Your task to perform on an android device: toggle priority inbox in the gmail app Image 0: 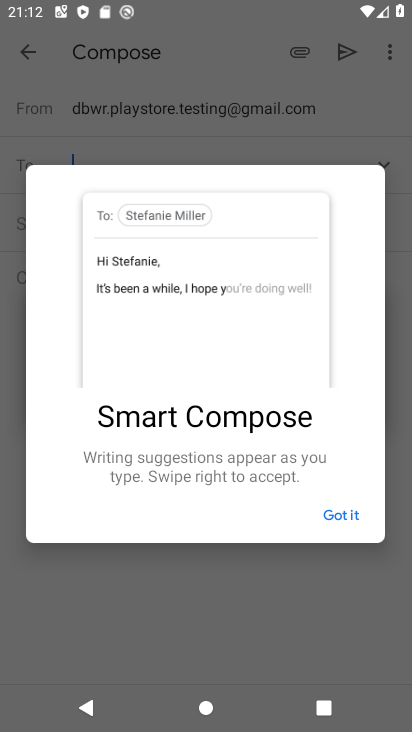
Step 0: press home button
Your task to perform on an android device: toggle priority inbox in the gmail app Image 1: 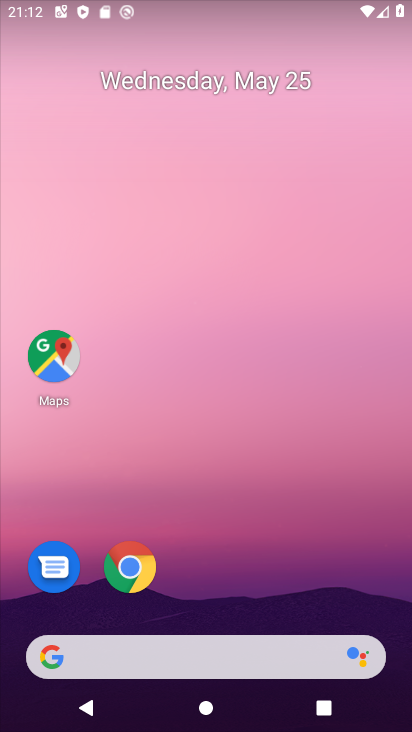
Step 1: drag from (241, 567) to (253, 25)
Your task to perform on an android device: toggle priority inbox in the gmail app Image 2: 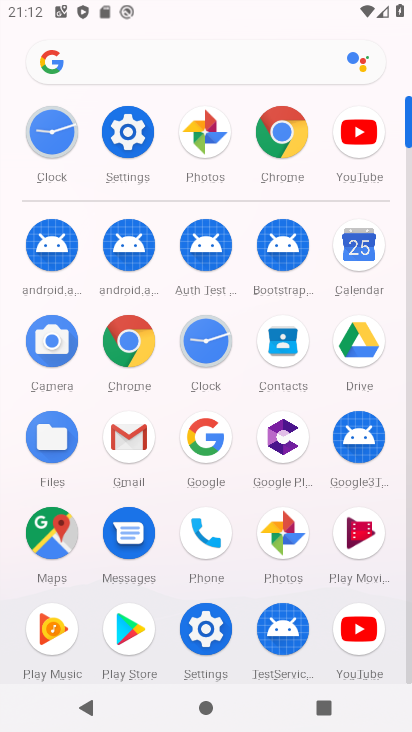
Step 2: click (147, 438)
Your task to perform on an android device: toggle priority inbox in the gmail app Image 3: 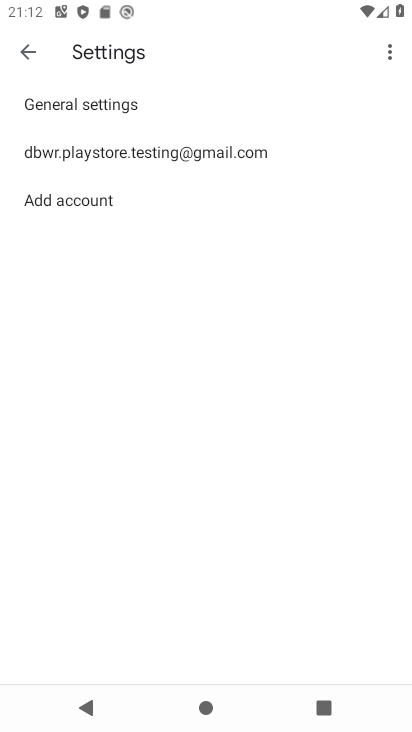
Step 3: click (151, 146)
Your task to perform on an android device: toggle priority inbox in the gmail app Image 4: 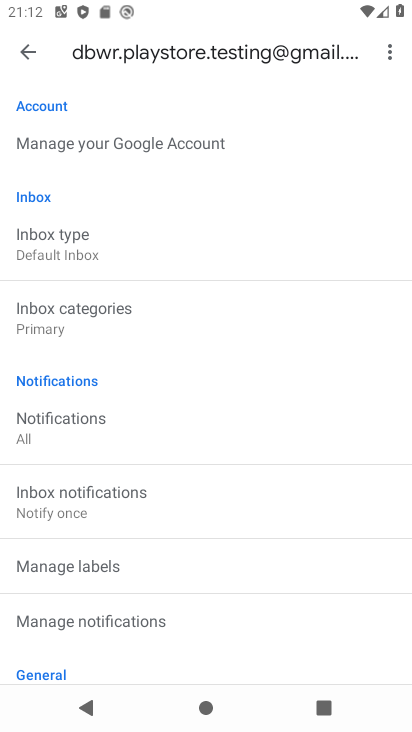
Step 4: click (82, 236)
Your task to perform on an android device: toggle priority inbox in the gmail app Image 5: 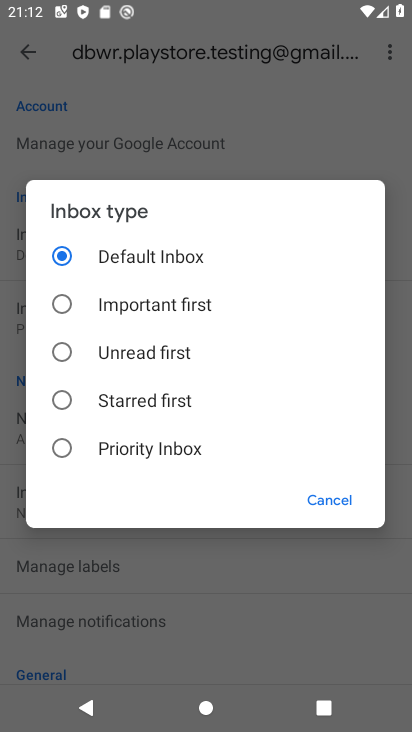
Step 5: click (56, 440)
Your task to perform on an android device: toggle priority inbox in the gmail app Image 6: 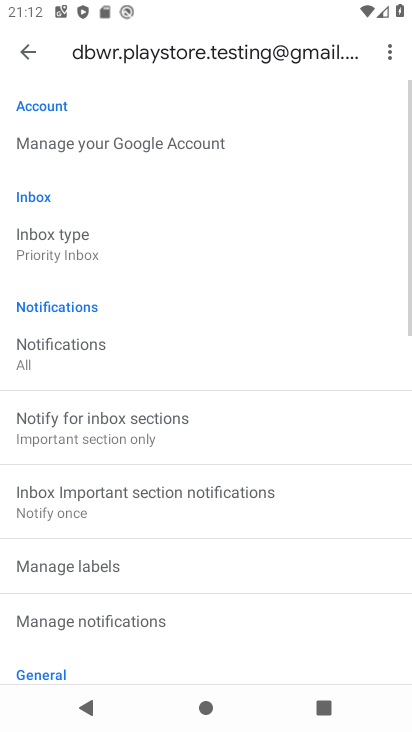
Step 6: task complete